Your task to perform on an android device: change text size in settings app Image 0: 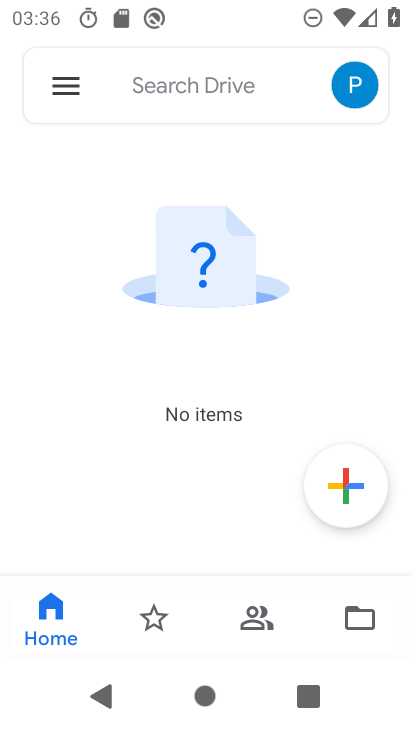
Step 0: press back button
Your task to perform on an android device: change text size in settings app Image 1: 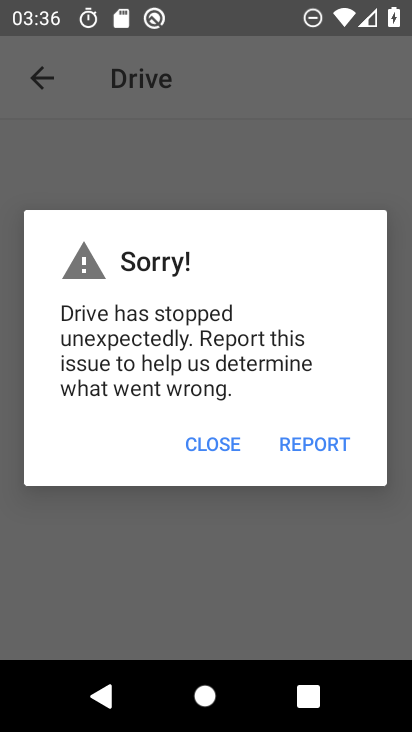
Step 1: press home button
Your task to perform on an android device: change text size in settings app Image 2: 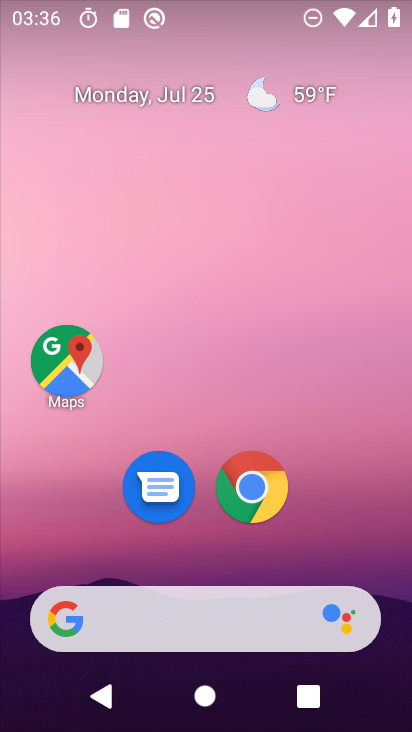
Step 2: drag from (125, 567) to (240, 0)
Your task to perform on an android device: change text size in settings app Image 3: 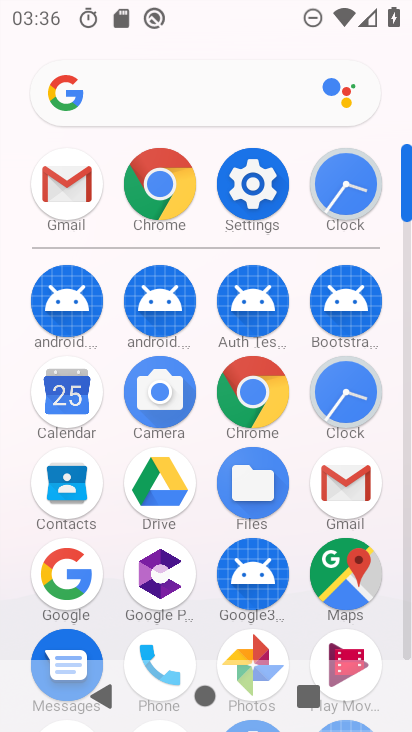
Step 3: click (249, 170)
Your task to perform on an android device: change text size in settings app Image 4: 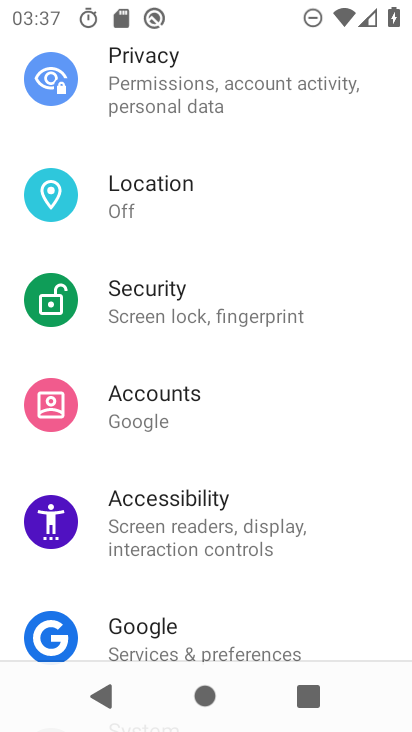
Step 4: drag from (251, 158) to (188, 693)
Your task to perform on an android device: change text size in settings app Image 5: 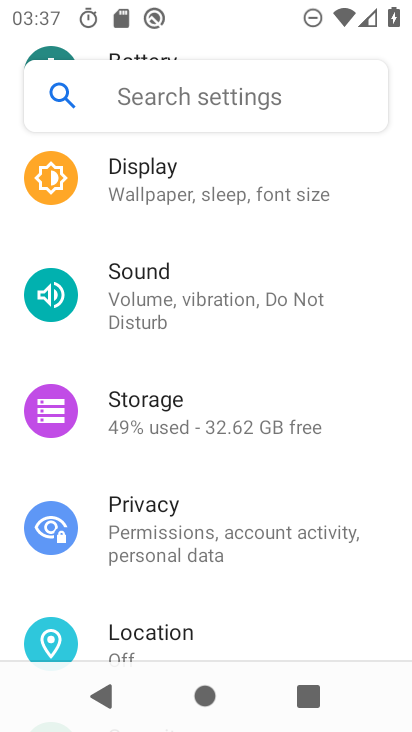
Step 5: click (159, 91)
Your task to perform on an android device: change text size in settings app Image 6: 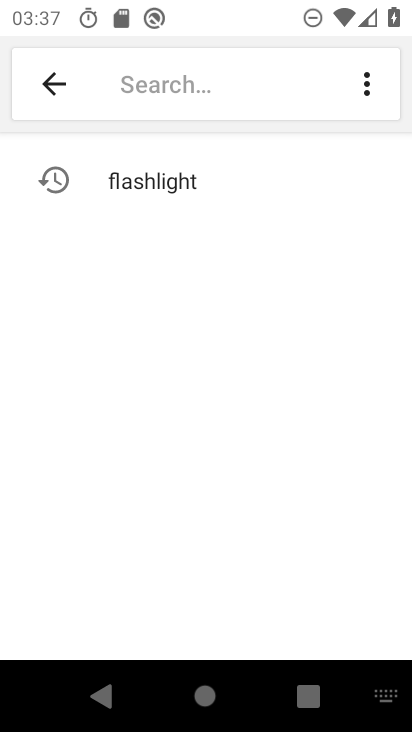
Step 6: type "text size"
Your task to perform on an android device: change text size in settings app Image 7: 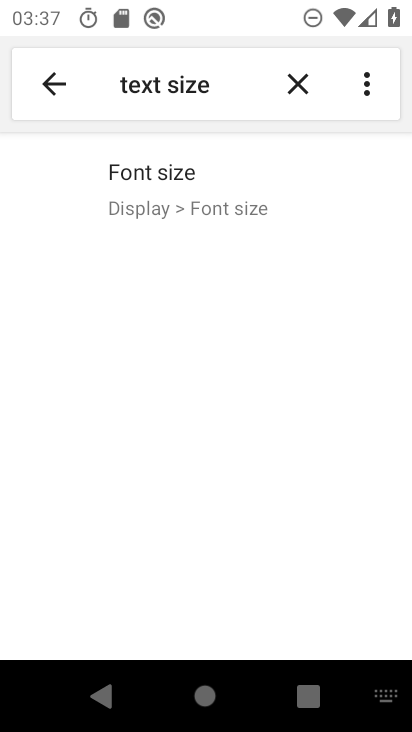
Step 7: click (210, 183)
Your task to perform on an android device: change text size in settings app Image 8: 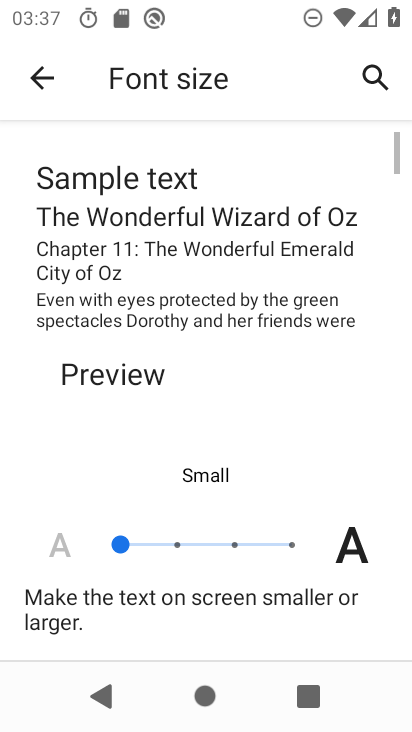
Step 8: click (231, 538)
Your task to perform on an android device: change text size in settings app Image 9: 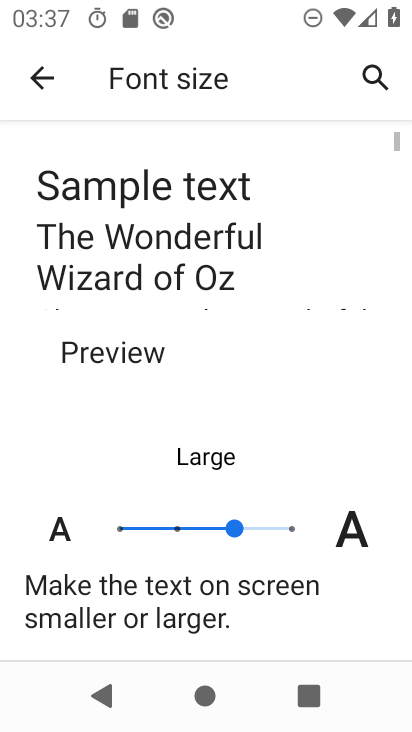
Step 9: task complete